Your task to perform on an android device: Open maps Image 0: 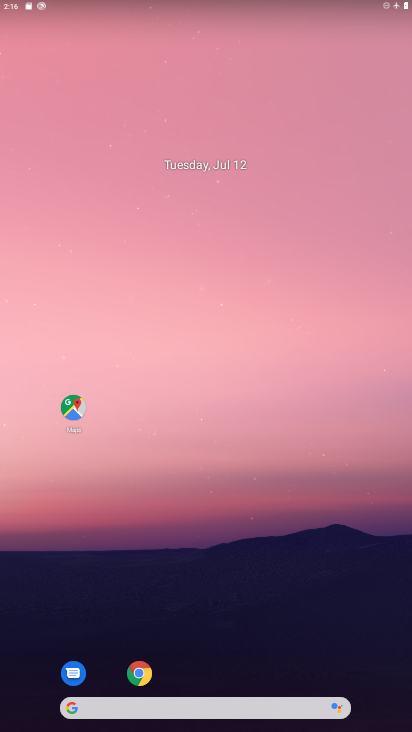
Step 0: click (203, 637)
Your task to perform on an android device: Open maps Image 1: 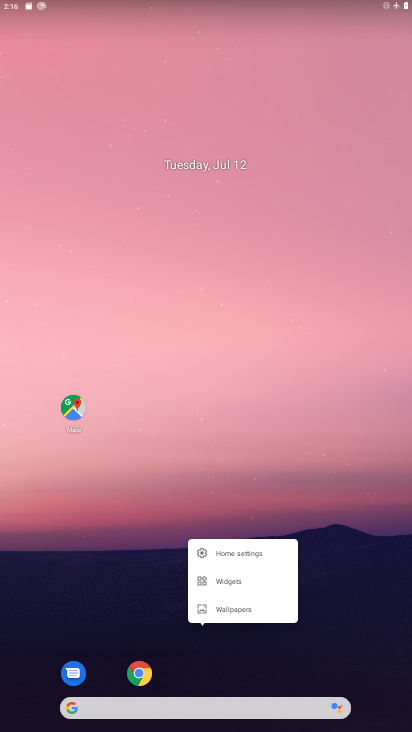
Step 1: click (68, 413)
Your task to perform on an android device: Open maps Image 2: 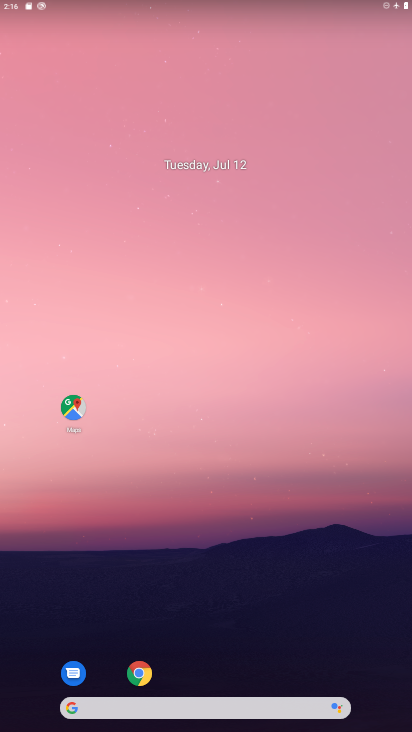
Step 2: click (68, 413)
Your task to perform on an android device: Open maps Image 3: 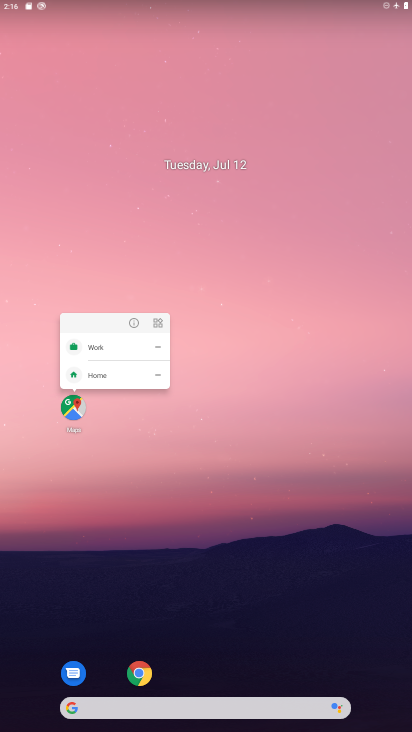
Step 3: click (70, 389)
Your task to perform on an android device: Open maps Image 4: 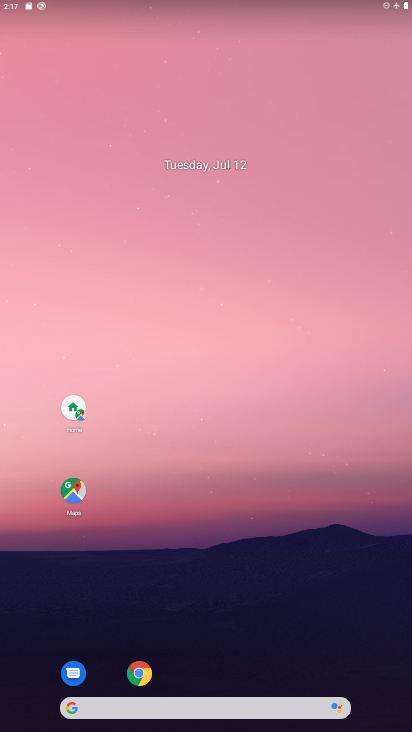
Step 4: click (66, 409)
Your task to perform on an android device: Open maps Image 5: 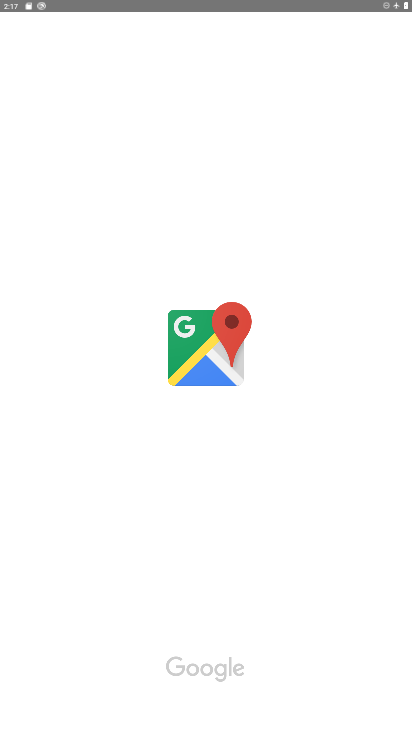
Step 5: click (74, 500)
Your task to perform on an android device: Open maps Image 6: 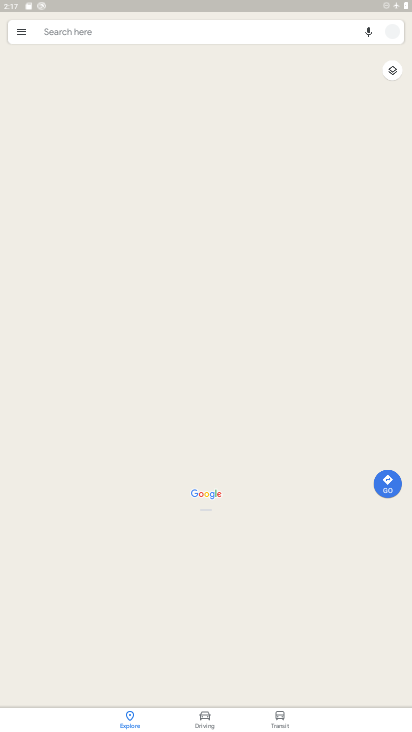
Step 6: task complete